Your task to perform on an android device: set the stopwatch Image 0: 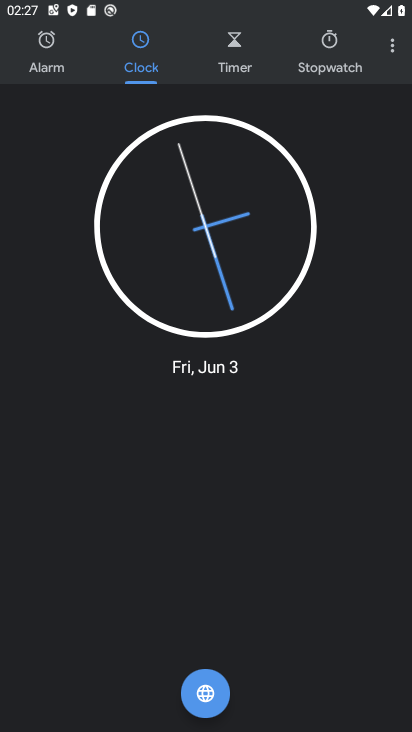
Step 0: click (324, 45)
Your task to perform on an android device: set the stopwatch Image 1: 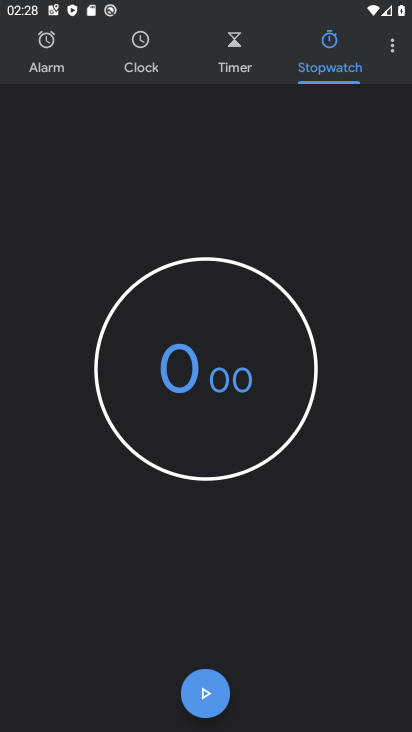
Step 1: click (199, 697)
Your task to perform on an android device: set the stopwatch Image 2: 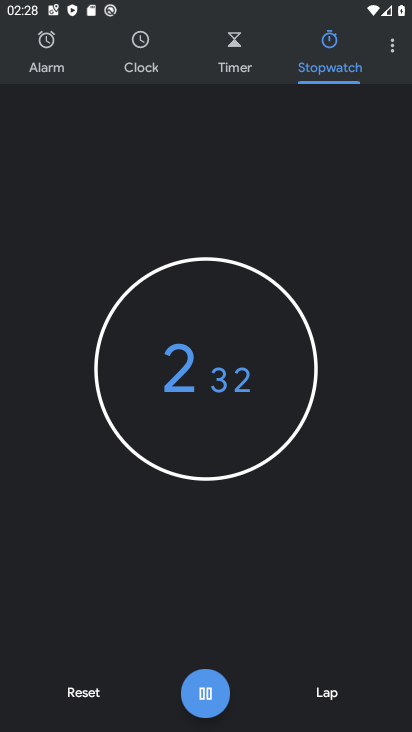
Step 2: task complete